Your task to perform on an android device: clear history in the chrome app Image 0: 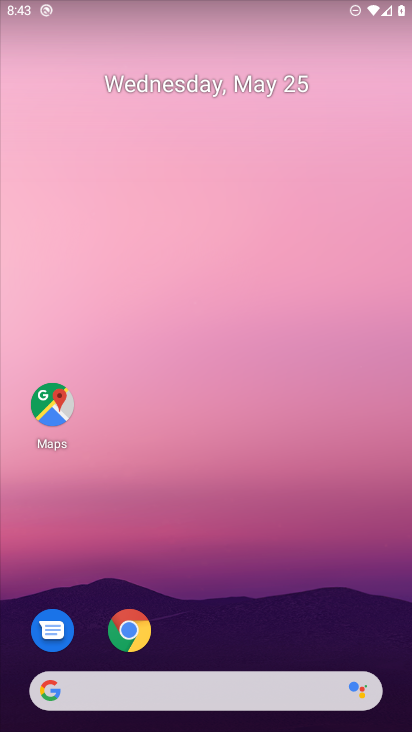
Step 0: click (128, 631)
Your task to perform on an android device: clear history in the chrome app Image 1: 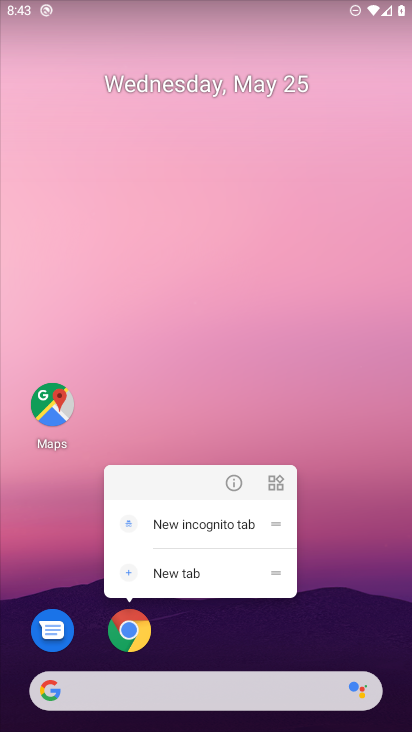
Step 1: click (128, 631)
Your task to perform on an android device: clear history in the chrome app Image 2: 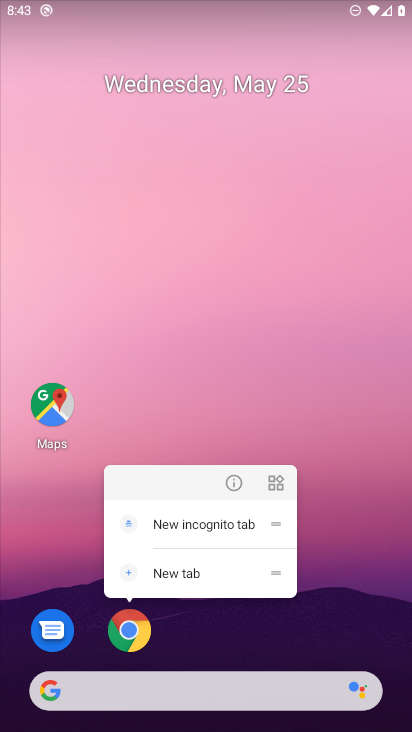
Step 2: click (134, 632)
Your task to perform on an android device: clear history in the chrome app Image 3: 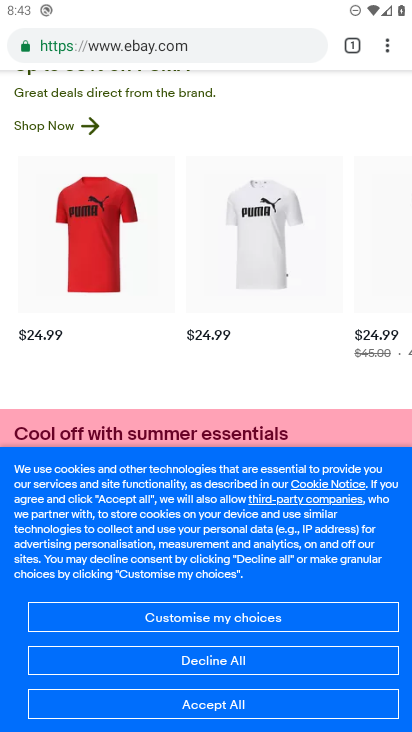
Step 3: click (385, 43)
Your task to perform on an android device: clear history in the chrome app Image 4: 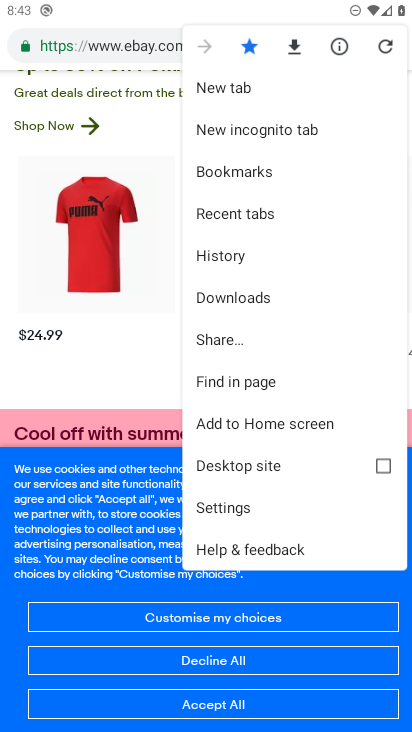
Step 4: click (239, 253)
Your task to perform on an android device: clear history in the chrome app Image 5: 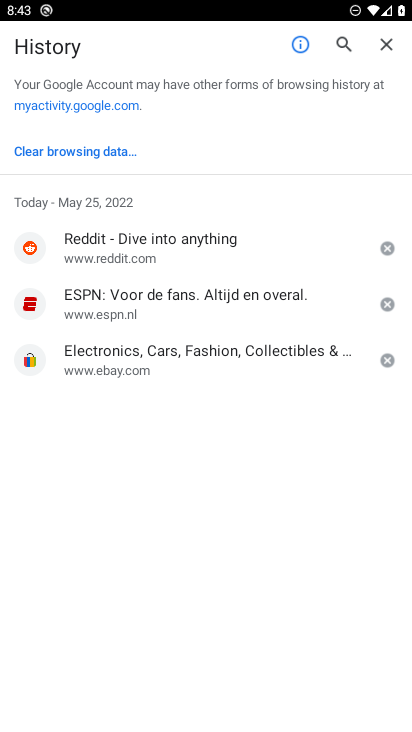
Step 5: click (106, 151)
Your task to perform on an android device: clear history in the chrome app Image 6: 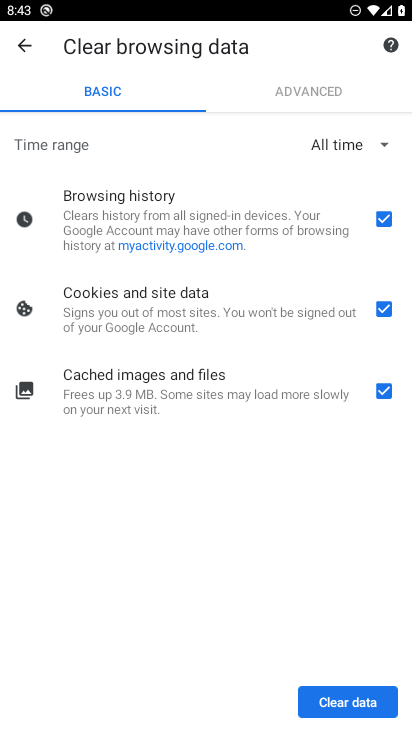
Step 6: click (330, 712)
Your task to perform on an android device: clear history in the chrome app Image 7: 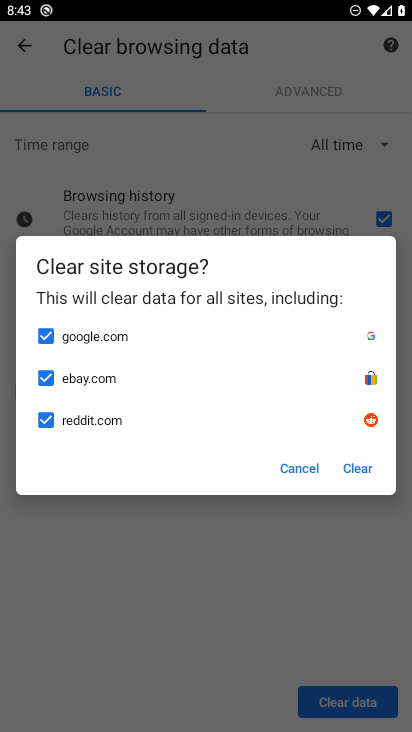
Step 7: click (366, 468)
Your task to perform on an android device: clear history in the chrome app Image 8: 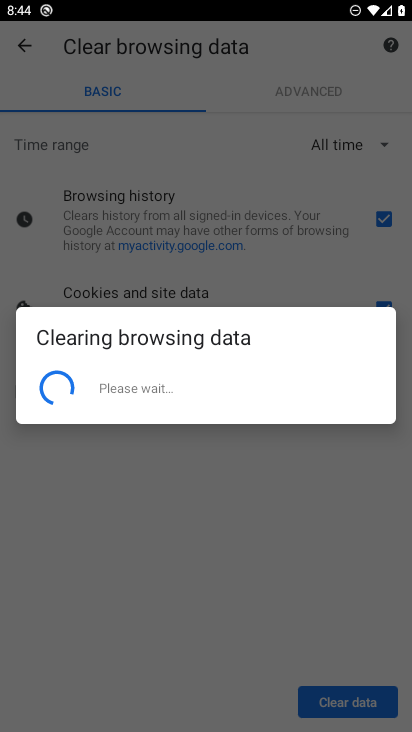
Step 8: task complete